Your task to perform on an android device: What's the weather today? Image 0: 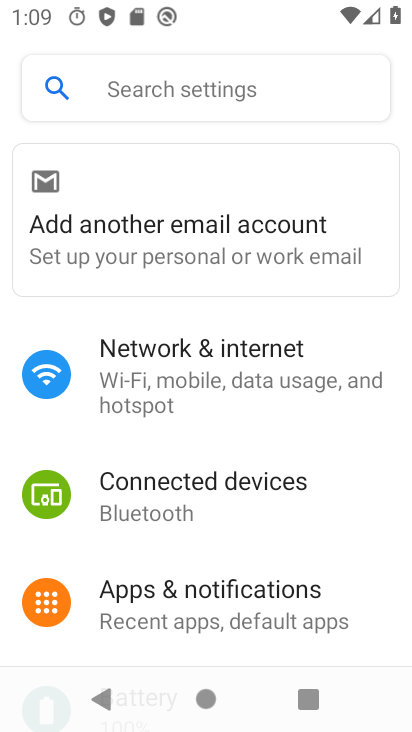
Step 0: press home button
Your task to perform on an android device: What's the weather today? Image 1: 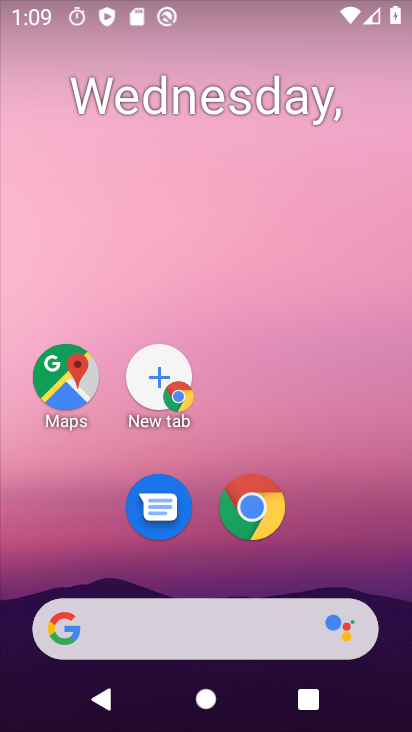
Step 1: drag from (333, 529) to (330, 186)
Your task to perform on an android device: What's the weather today? Image 2: 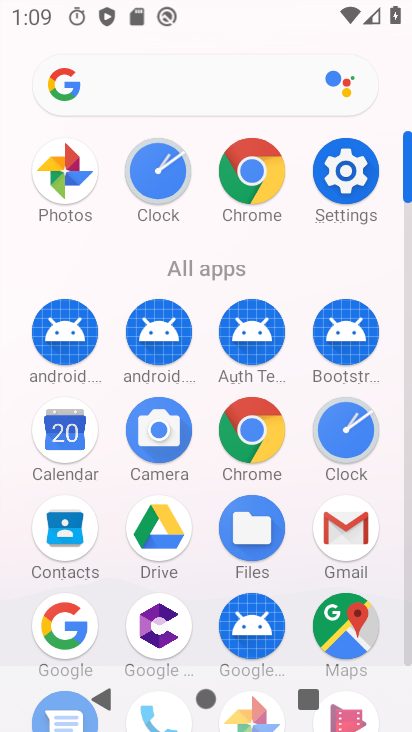
Step 2: click (109, 717)
Your task to perform on an android device: What's the weather today? Image 3: 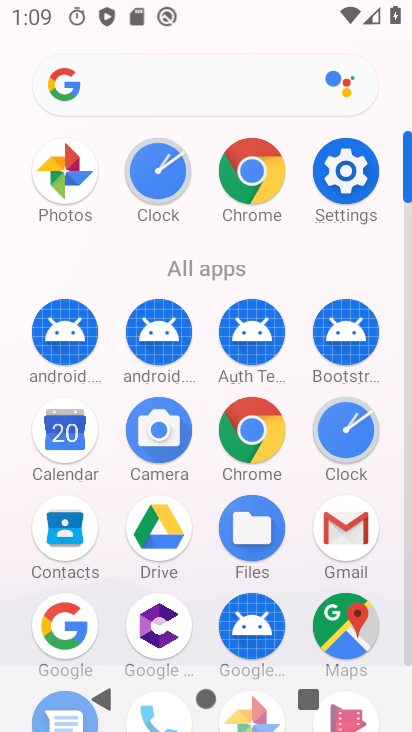
Step 3: click (109, 717)
Your task to perform on an android device: What's the weather today? Image 4: 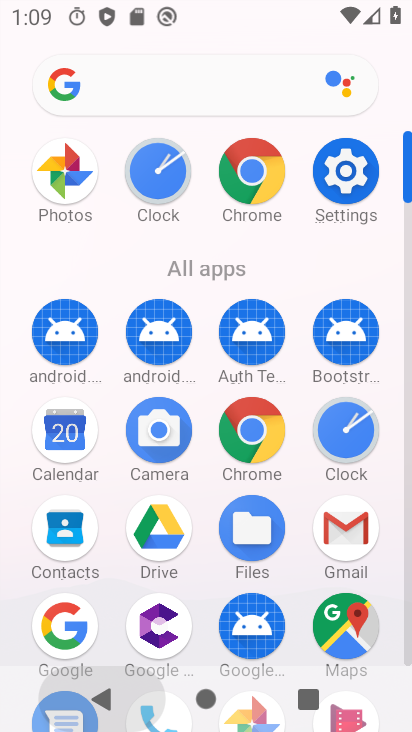
Step 4: click (109, 696)
Your task to perform on an android device: What's the weather today? Image 5: 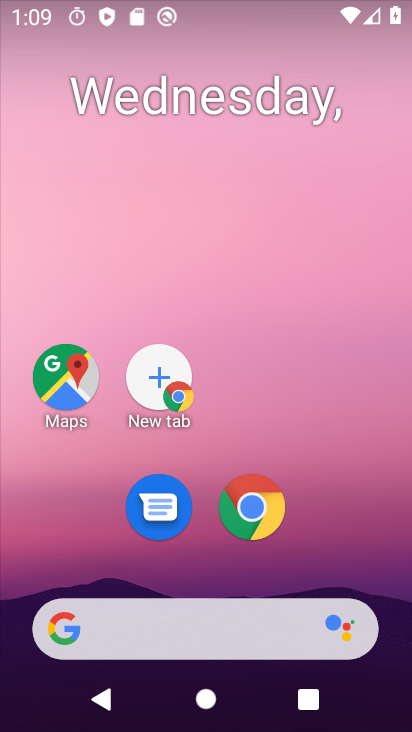
Step 5: drag from (1, 224) to (404, 233)
Your task to perform on an android device: What's the weather today? Image 6: 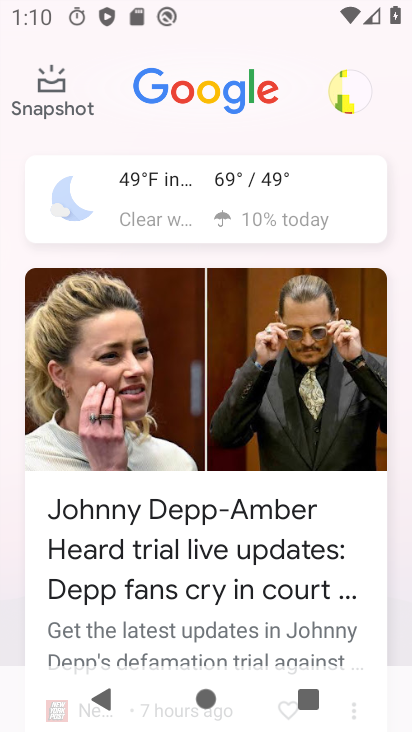
Step 6: click (255, 193)
Your task to perform on an android device: What's the weather today? Image 7: 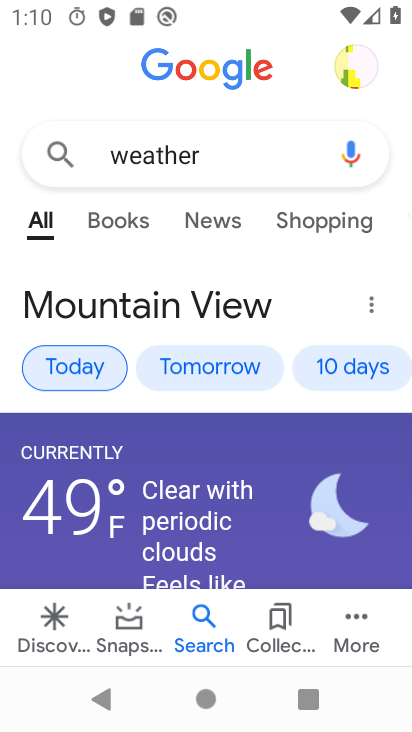
Step 7: task complete